Your task to perform on an android device: What is the capital of Switzerland? Image 0: 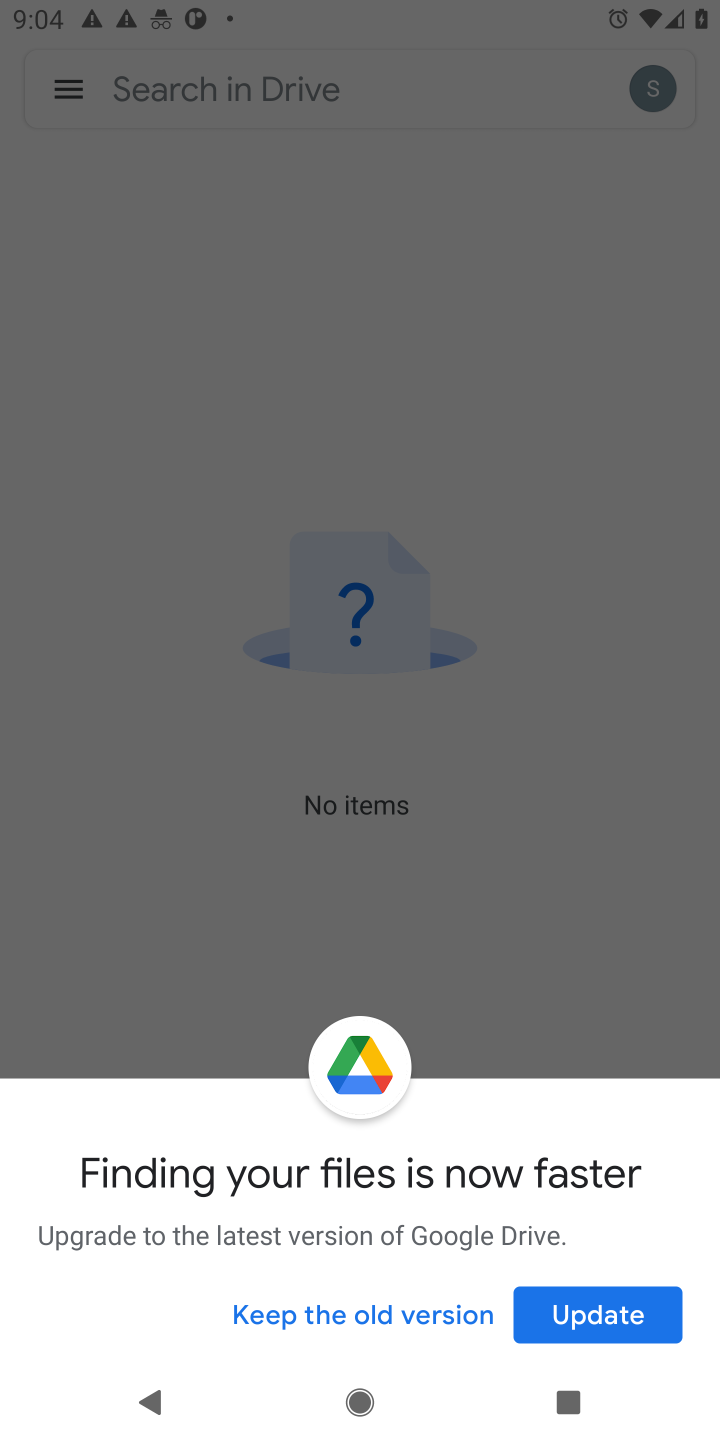
Step 0: press home button
Your task to perform on an android device: What is the capital of Switzerland? Image 1: 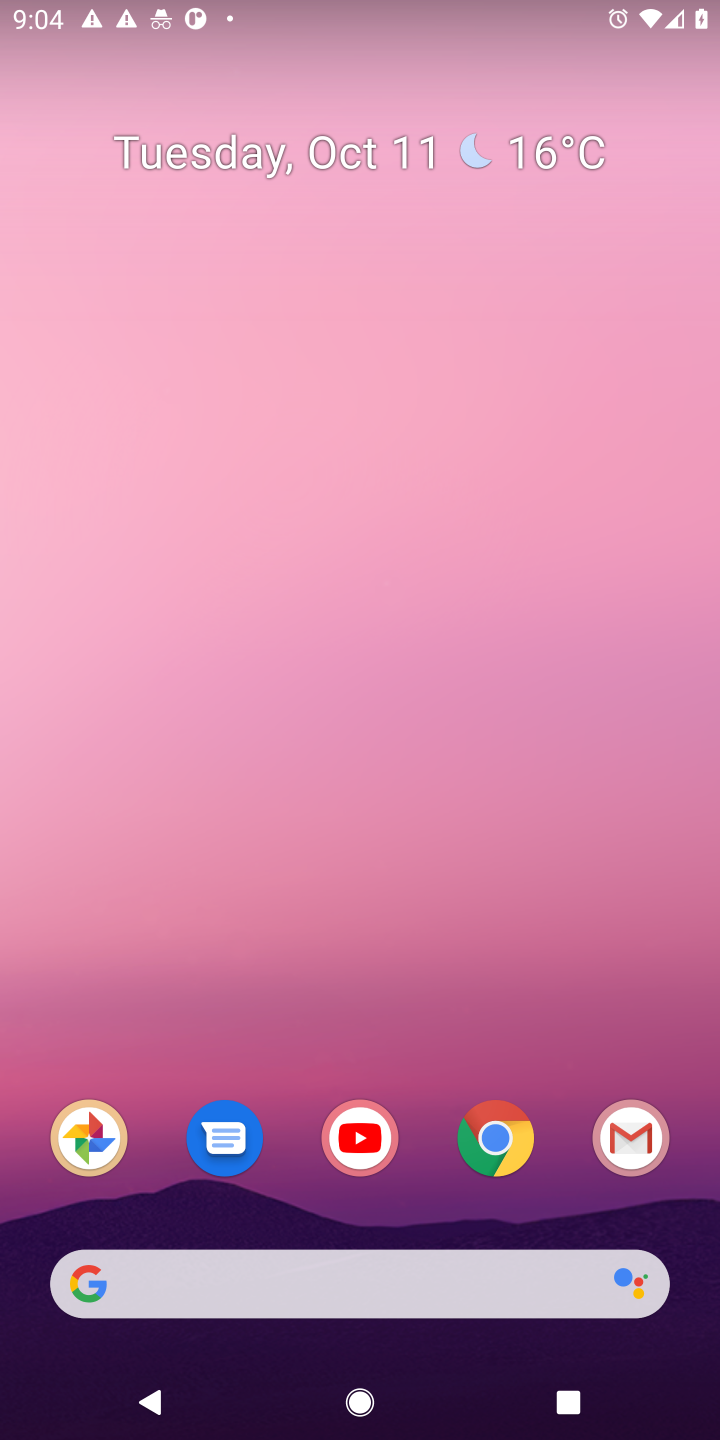
Step 1: click (245, 1277)
Your task to perform on an android device: What is the capital of Switzerland? Image 2: 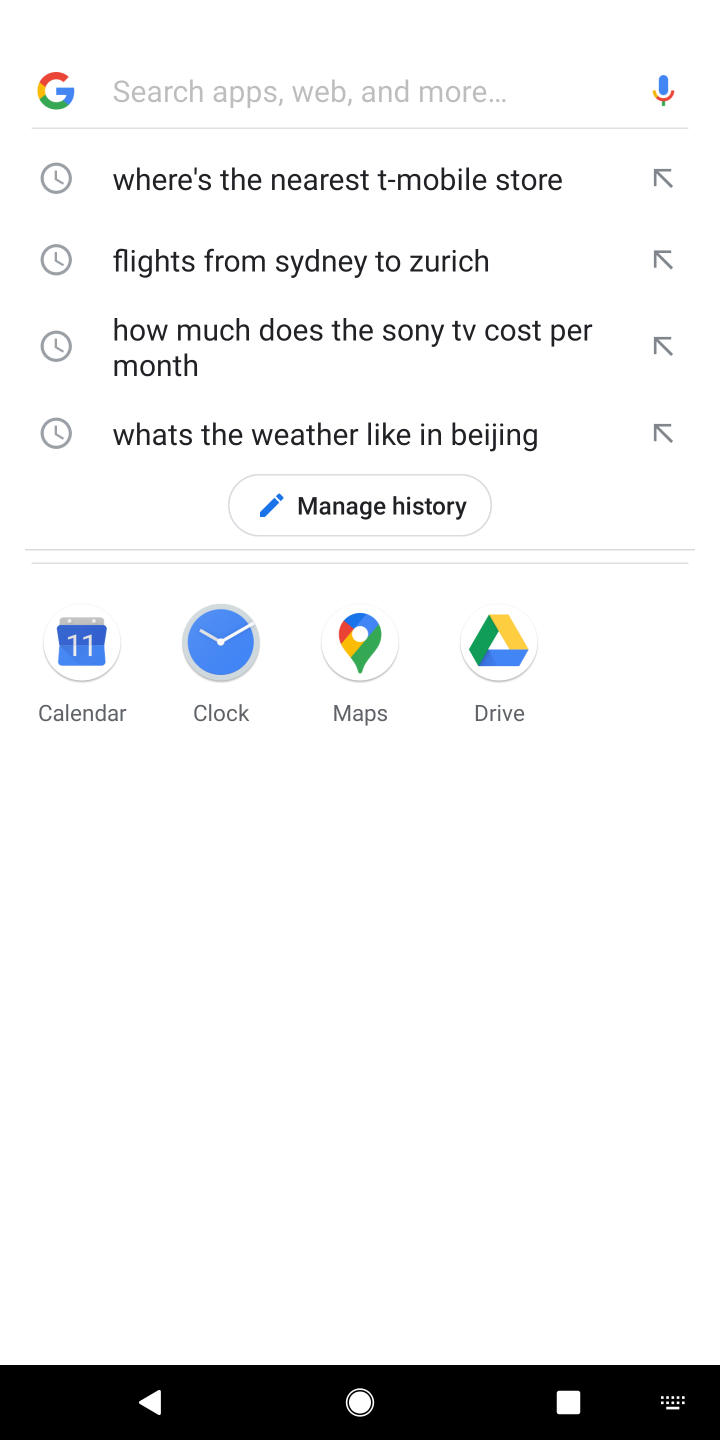
Step 2: type "capital of switzerland"
Your task to perform on an android device: What is the capital of Switzerland? Image 3: 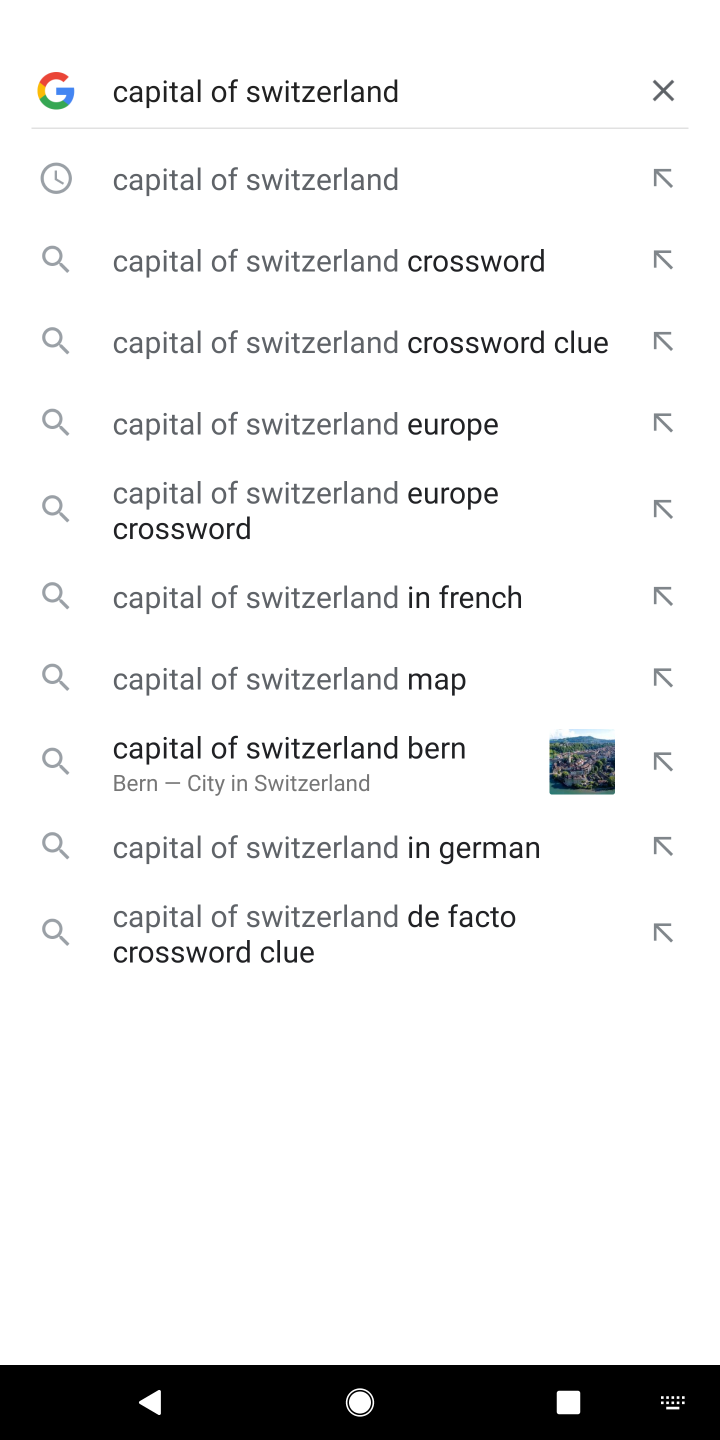
Step 3: click (299, 172)
Your task to perform on an android device: What is the capital of Switzerland? Image 4: 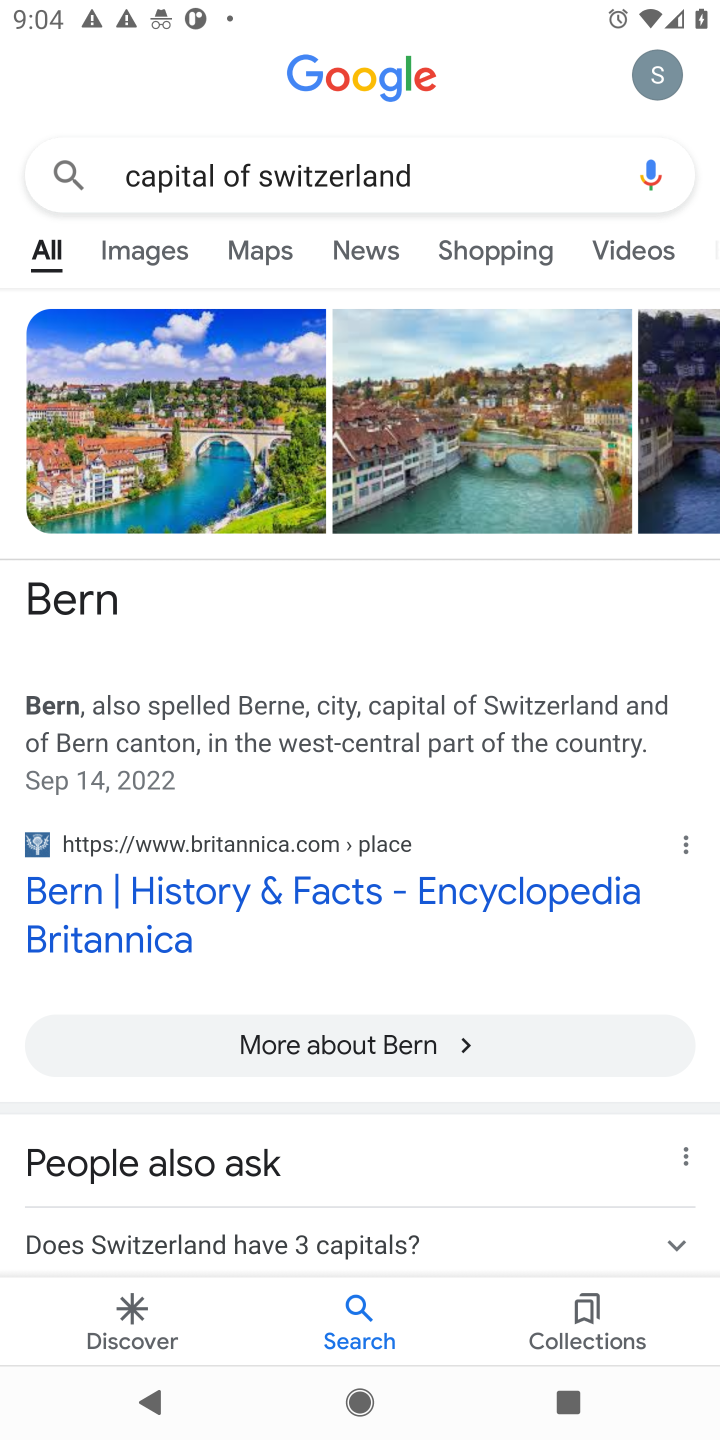
Step 4: task complete